Your task to perform on an android device: make emails show in primary in the gmail app Image 0: 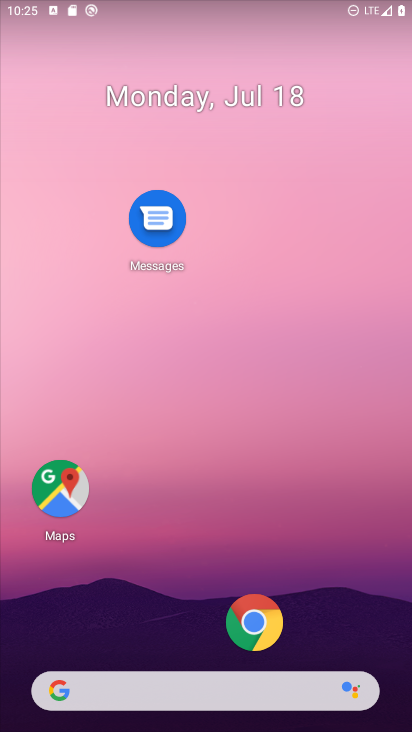
Step 0: drag from (233, 668) to (228, 145)
Your task to perform on an android device: make emails show in primary in the gmail app Image 1: 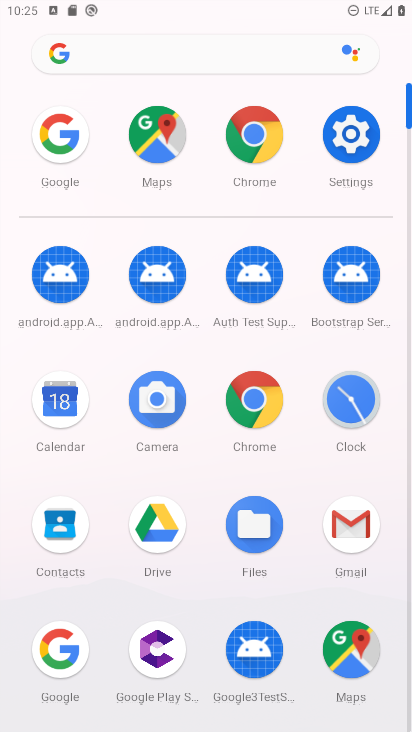
Step 1: click (364, 534)
Your task to perform on an android device: make emails show in primary in the gmail app Image 2: 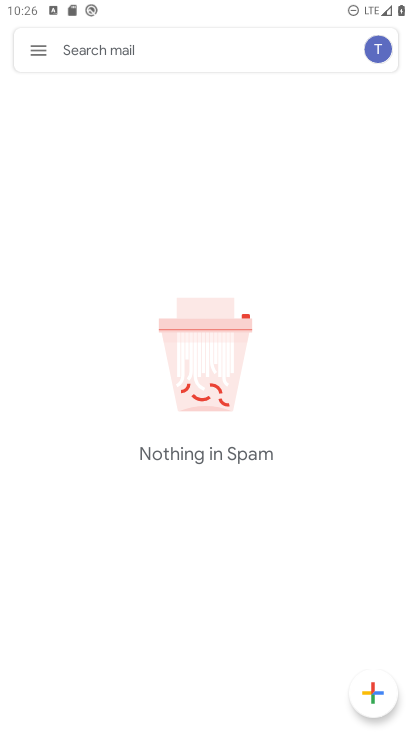
Step 2: click (40, 49)
Your task to perform on an android device: make emails show in primary in the gmail app Image 3: 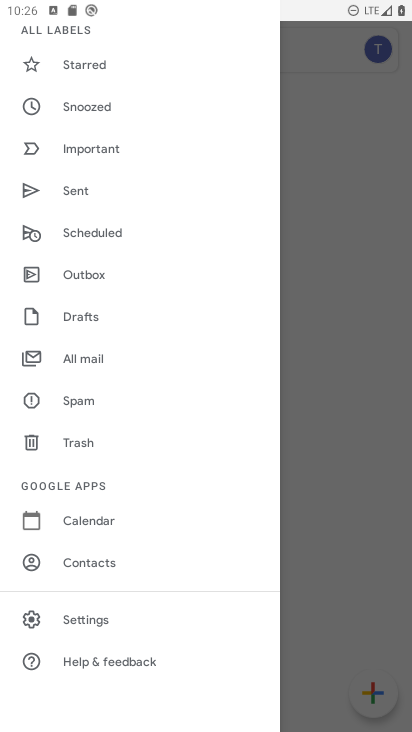
Step 3: click (96, 615)
Your task to perform on an android device: make emails show in primary in the gmail app Image 4: 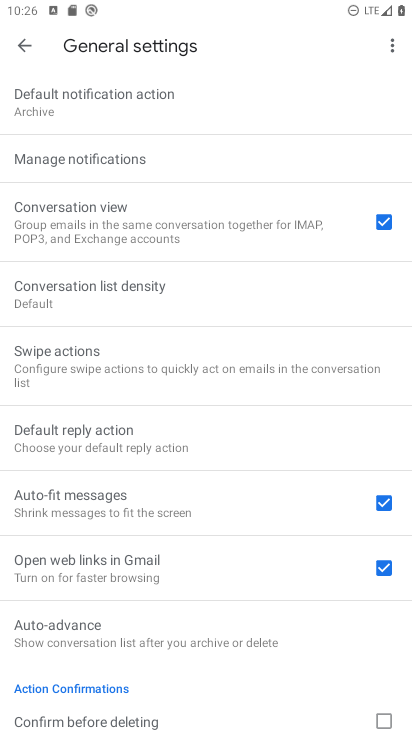
Step 4: task complete